Your task to perform on an android device: toggle show notifications on the lock screen Image 0: 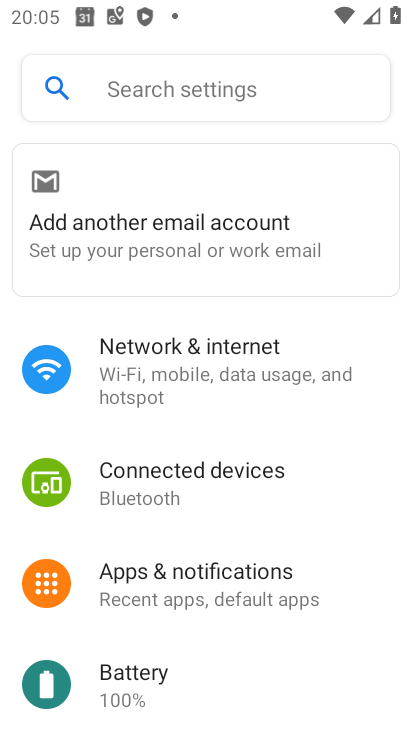
Step 0: click (153, 584)
Your task to perform on an android device: toggle show notifications on the lock screen Image 1: 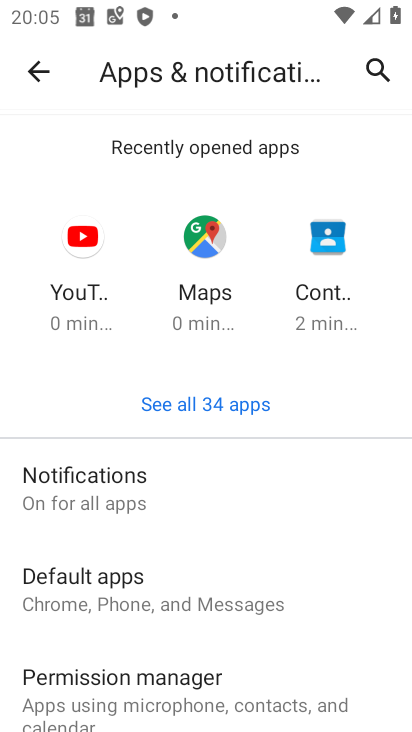
Step 1: drag from (286, 682) to (288, 231)
Your task to perform on an android device: toggle show notifications on the lock screen Image 2: 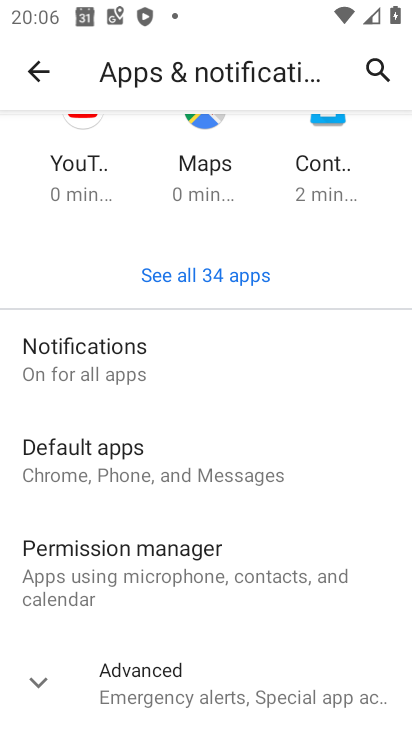
Step 2: drag from (271, 651) to (263, 271)
Your task to perform on an android device: toggle show notifications on the lock screen Image 3: 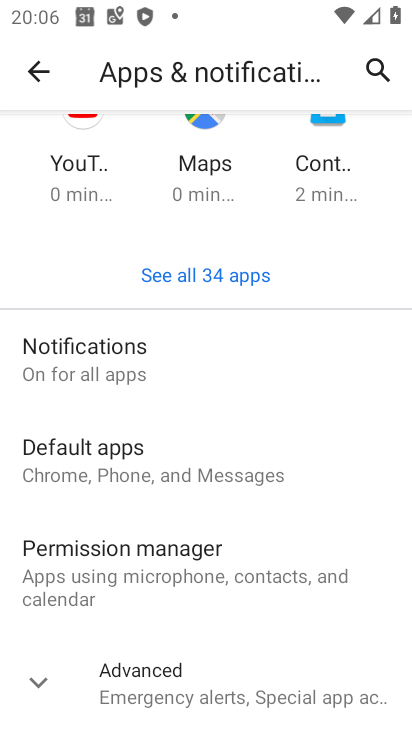
Step 3: click (81, 345)
Your task to perform on an android device: toggle show notifications on the lock screen Image 4: 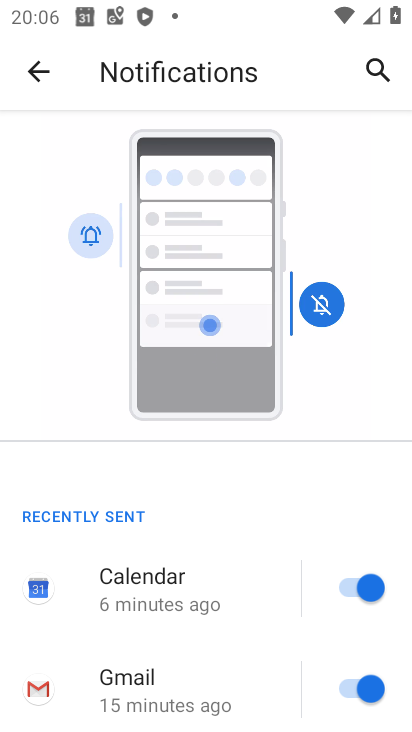
Step 4: drag from (236, 358) to (220, 45)
Your task to perform on an android device: toggle show notifications on the lock screen Image 5: 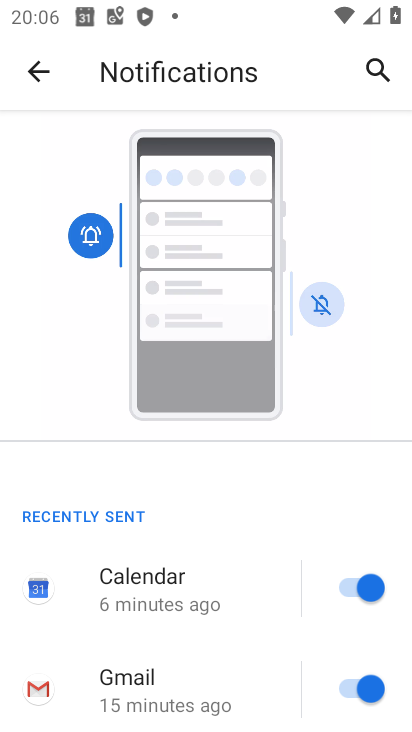
Step 5: drag from (260, 391) to (248, 190)
Your task to perform on an android device: toggle show notifications on the lock screen Image 6: 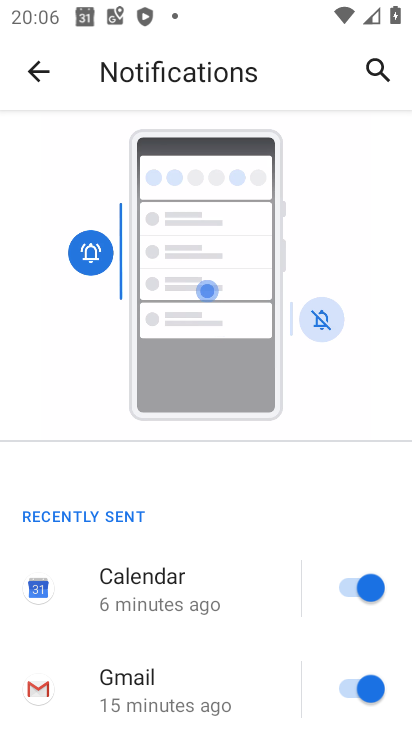
Step 6: drag from (255, 294) to (245, 204)
Your task to perform on an android device: toggle show notifications on the lock screen Image 7: 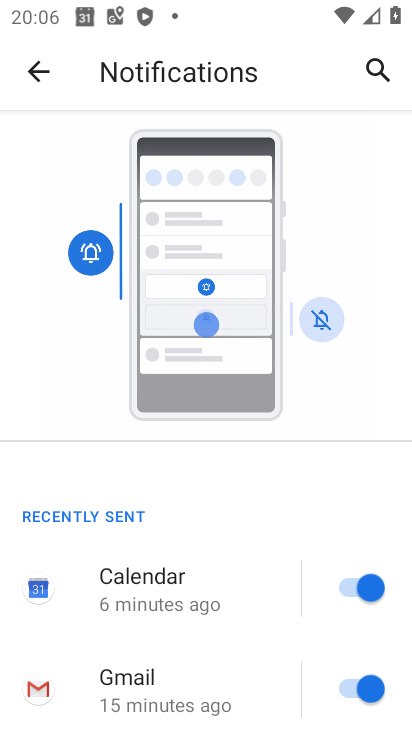
Step 7: click (410, 159)
Your task to perform on an android device: toggle show notifications on the lock screen Image 8: 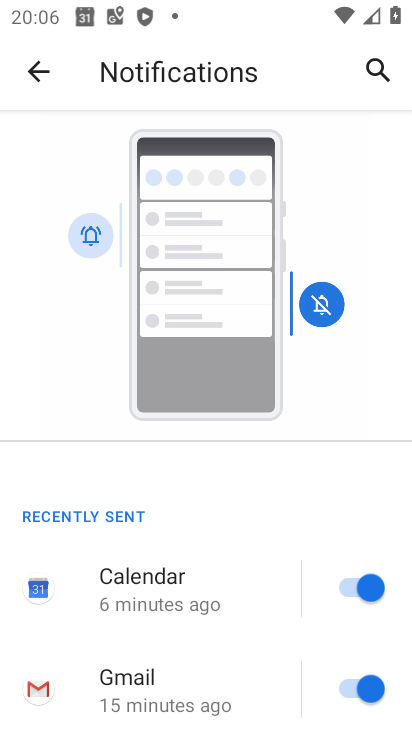
Step 8: drag from (402, 302) to (411, 131)
Your task to perform on an android device: toggle show notifications on the lock screen Image 9: 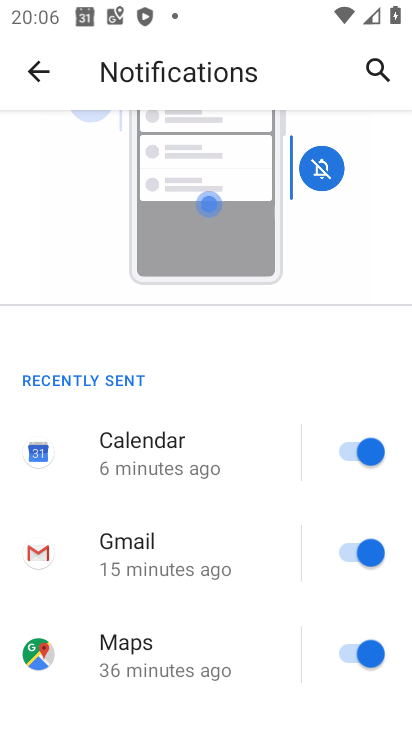
Step 9: click (395, 88)
Your task to perform on an android device: toggle show notifications on the lock screen Image 10: 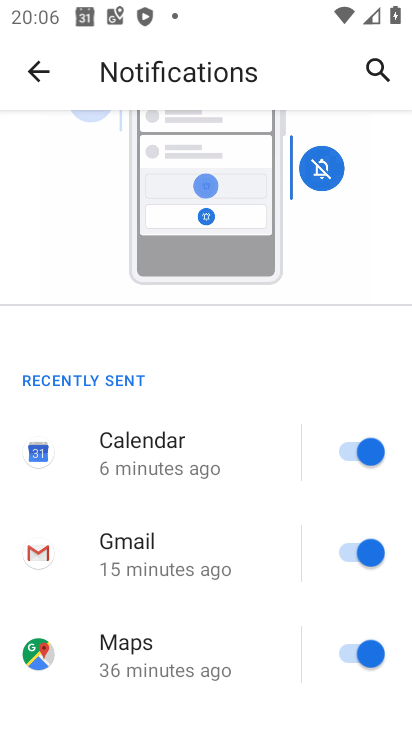
Step 10: drag from (401, 345) to (393, 33)
Your task to perform on an android device: toggle show notifications on the lock screen Image 11: 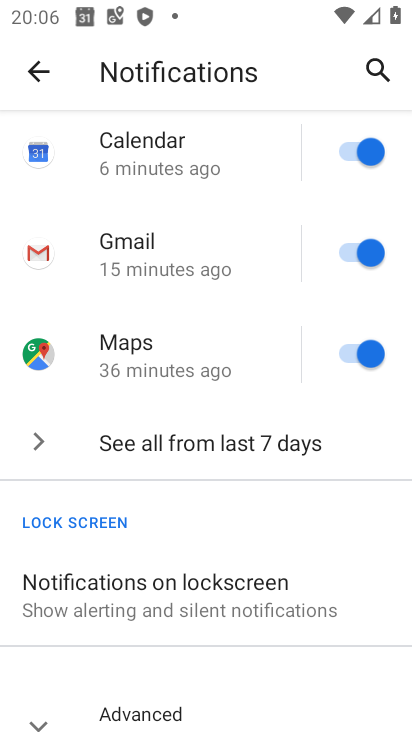
Step 11: click (140, 590)
Your task to perform on an android device: toggle show notifications on the lock screen Image 12: 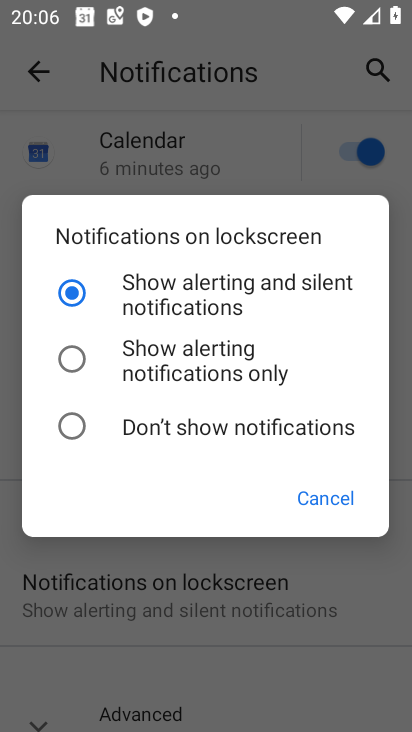
Step 12: click (70, 427)
Your task to perform on an android device: toggle show notifications on the lock screen Image 13: 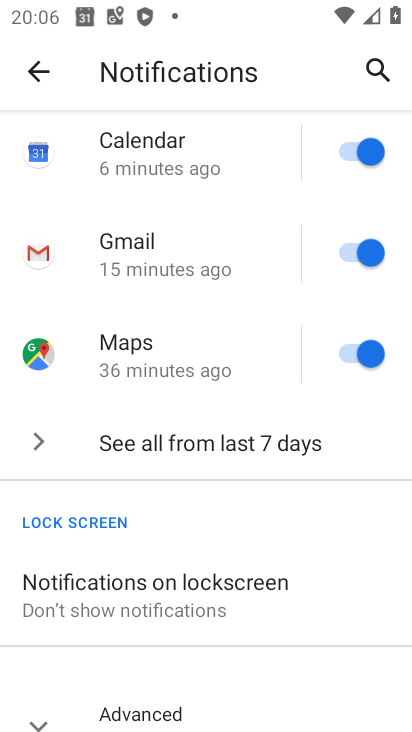
Step 13: task complete